Your task to perform on an android device: turn on location history Image 0: 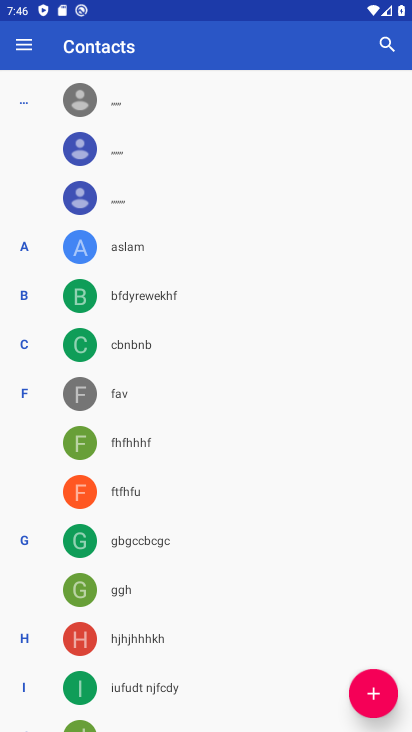
Step 0: press home button
Your task to perform on an android device: turn on location history Image 1: 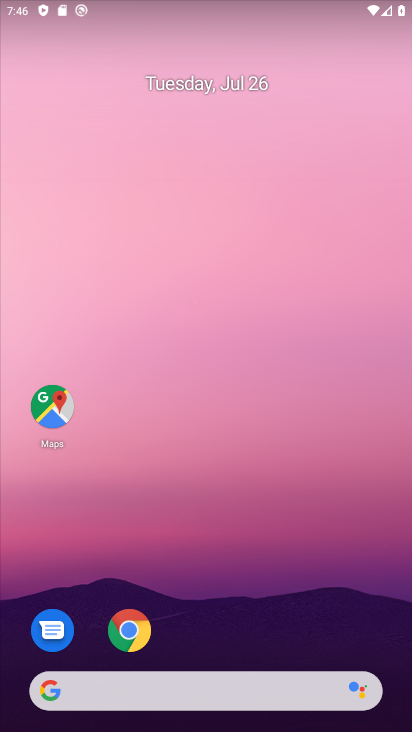
Step 1: drag from (249, 655) to (208, 117)
Your task to perform on an android device: turn on location history Image 2: 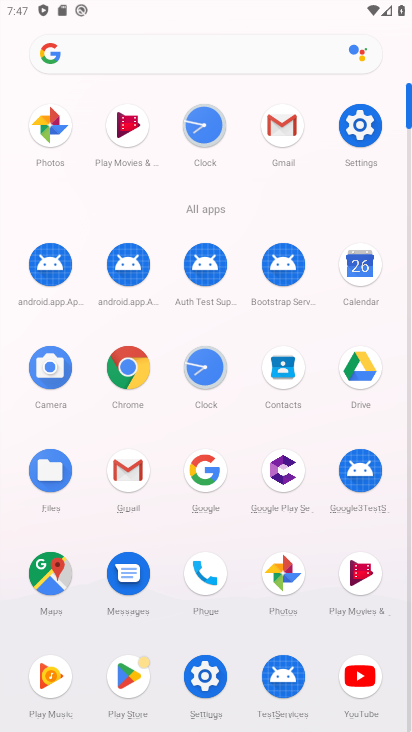
Step 2: click (352, 139)
Your task to perform on an android device: turn on location history Image 3: 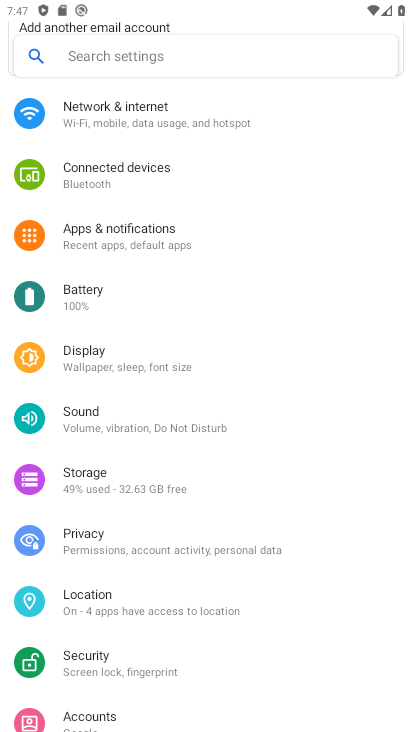
Step 3: click (137, 618)
Your task to perform on an android device: turn on location history Image 4: 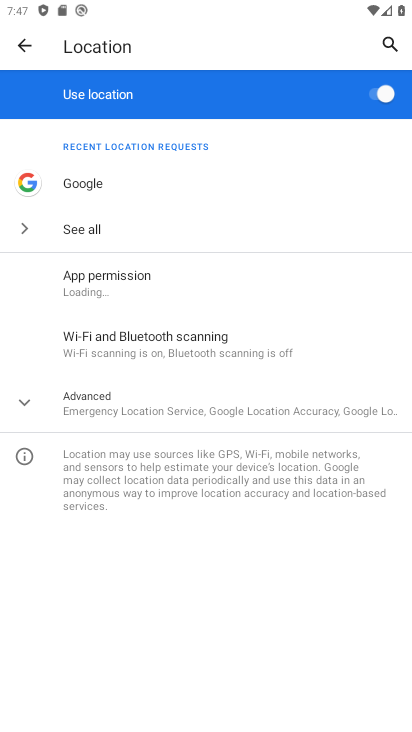
Step 4: click (106, 420)
Your task to perform on an android device: turn on location history Image 5: 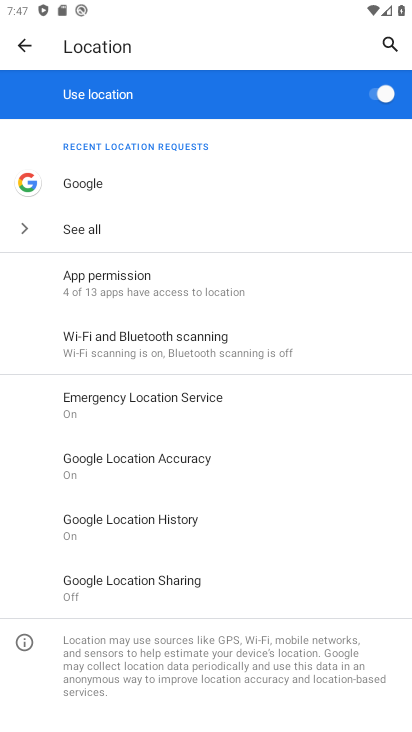
Step 5: click (134, 538)
Your task to perform on an android device: turn on location history Image 6: 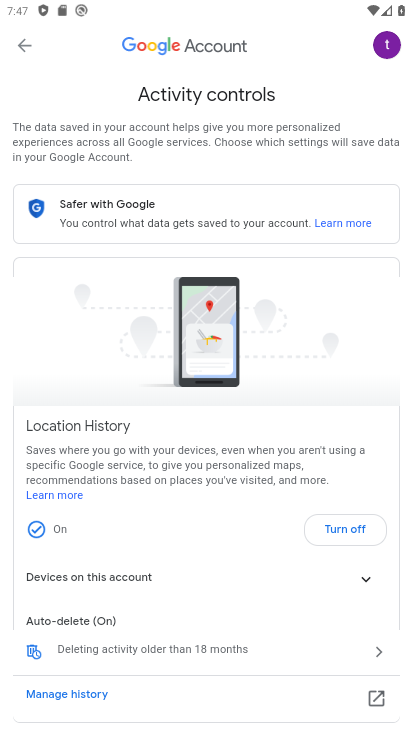
Step 6: task complete